Your task to perform on an android device: Go to Maps Image 0: 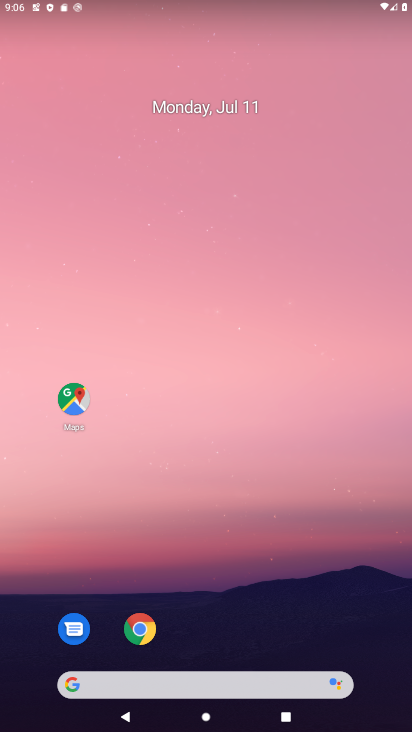
Step 0: click (70, 391)
Your task to perform on an android device: Go to Maps Image 1: 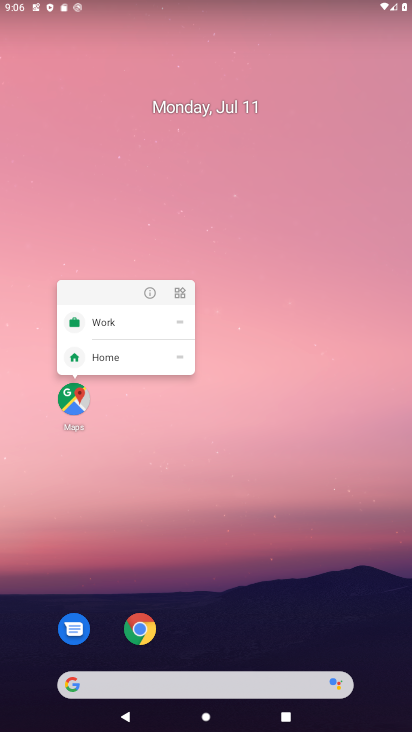
Step 1: click (64, 418)
Your task to perform on an android device: Go to Maps Image 2: 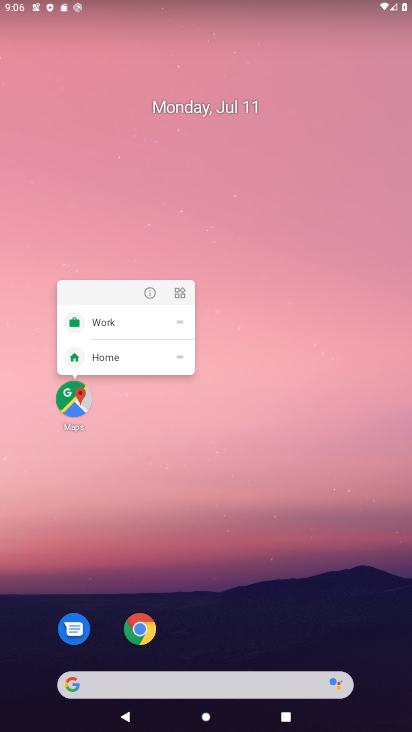
Step 2: click (76, 395)
Your task to perform on an android device: Go to Maps Image 3: 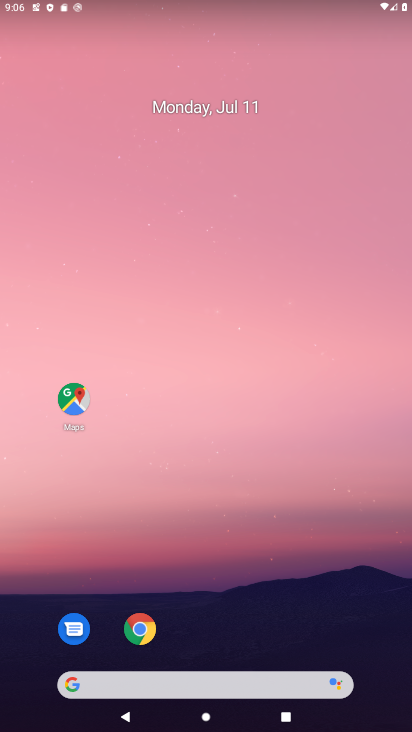
Step 3: click (76, 395)
Your task to perform on an android device: Go to Maps Image 4: 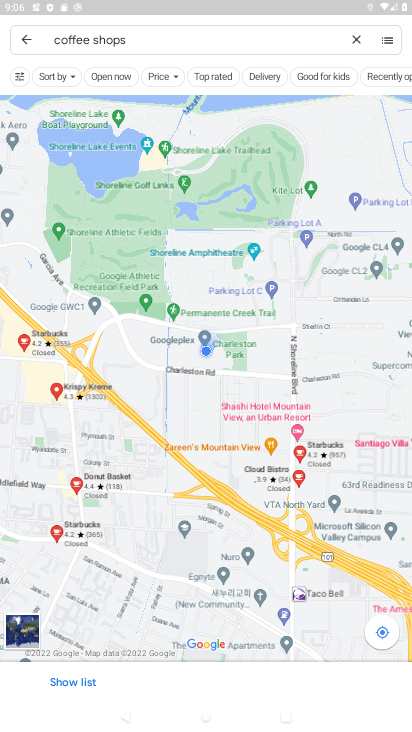
Step 4: task complete